Your task to perform on an android device: Go to privacy settings Image 0: 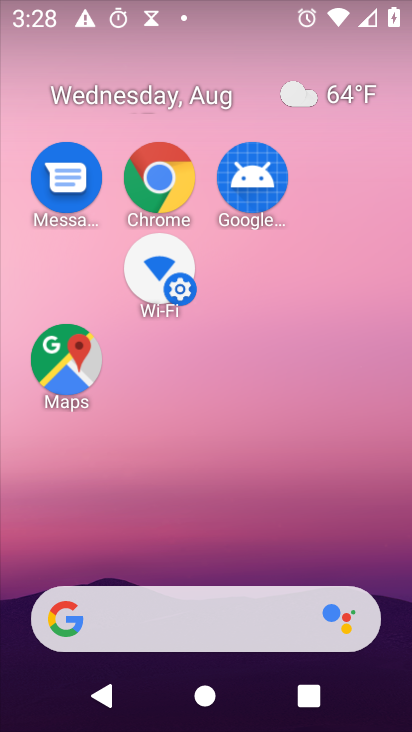
Step 0: press home button
Your task to perform on an android device: Go to privacy settings Image 1: 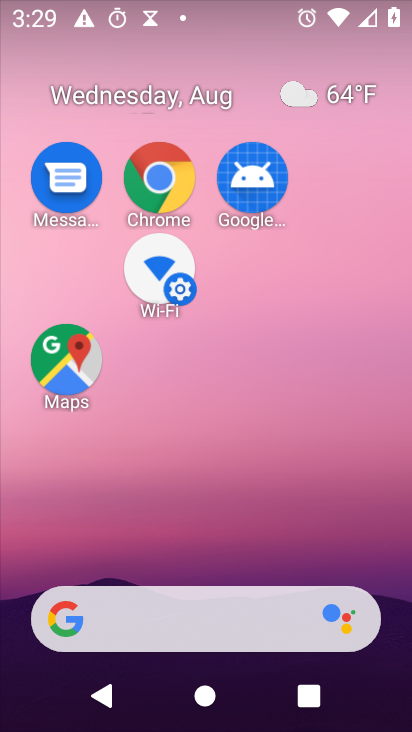
Step 1: drag from (276, 575) to (251, 82)
Your task to perform on an android device: Go to privacy settings Image 2: 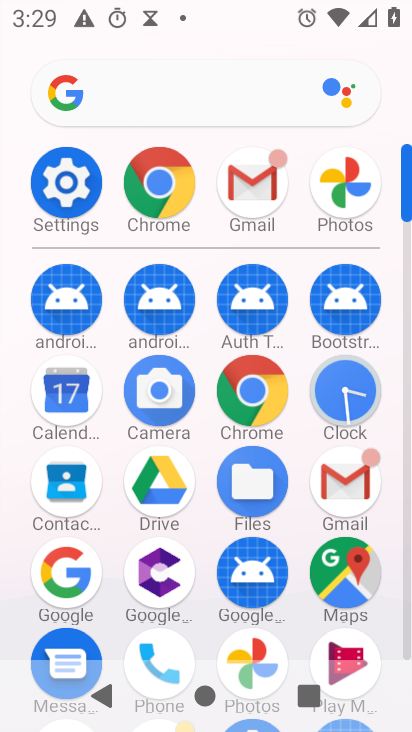
Step 2: click (73, 176)
Your task to perform on an android device: Go to privacy settings Image 3: 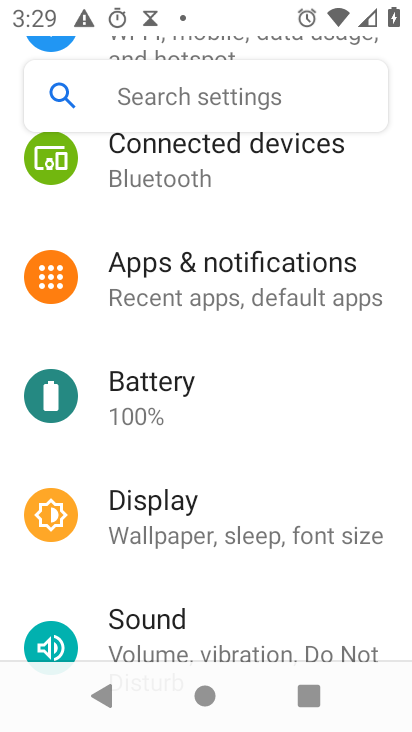
Step 3: drag from (233, 199) to (237, 619)
Your task to perform on an android device: Go to privacy settings Image 4: 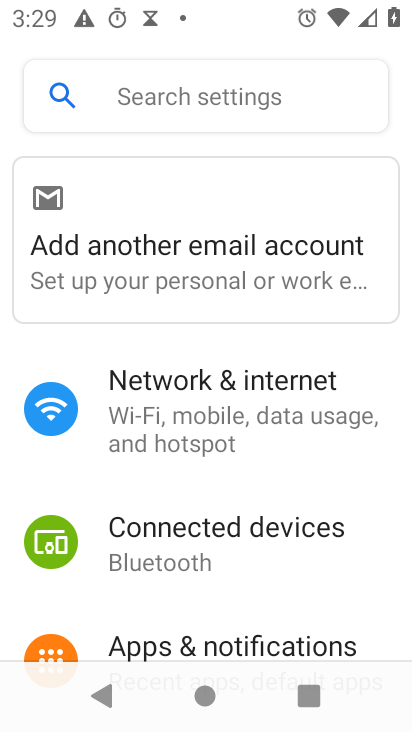
Step 4: drag from (300, 619) to (273, 39)
Your task to perform on an android device: Go to privacy settings Image 5: 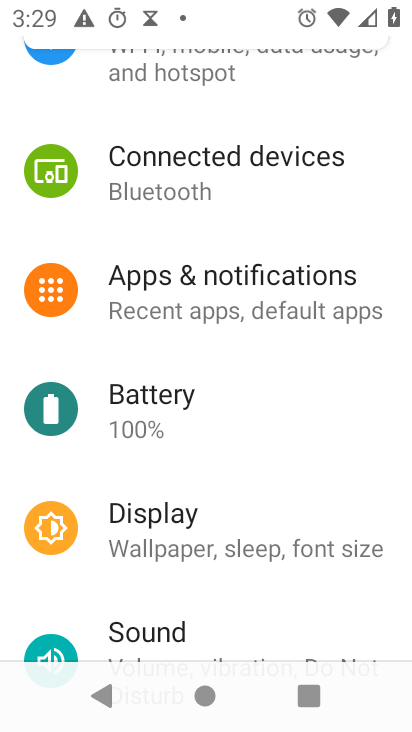
Step 5: drag from (314, 612) to (331, 44)
Your task to perform on an android device: Go to privacy settings Image 6: 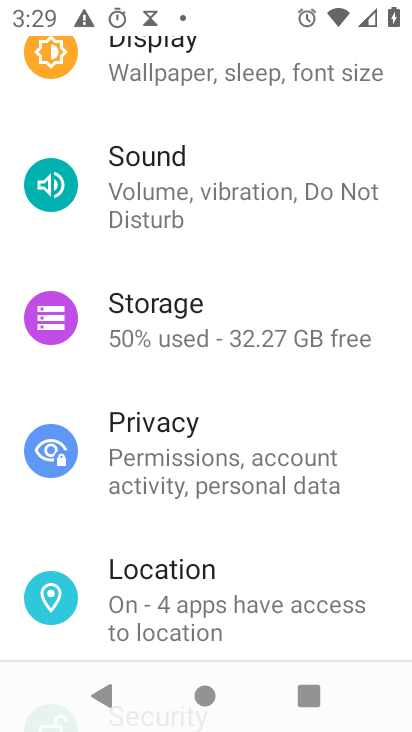
Step 6: click (149, 456)
Your task to perform on an android device: Go to privacy settings Image 7: 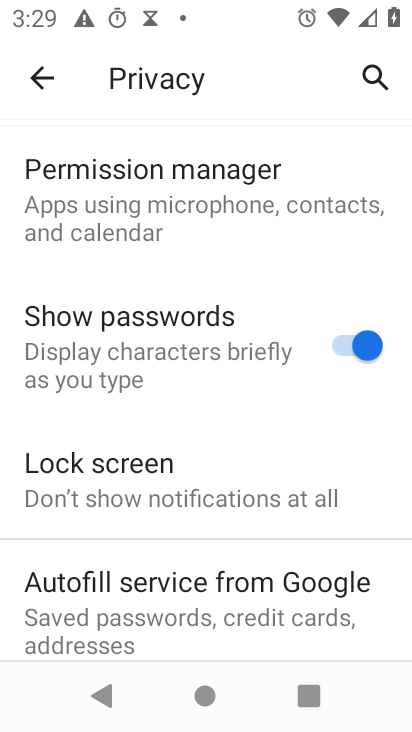
Step 7: task complete